Your task to perform on an android device: Go to Amazon Image 0: 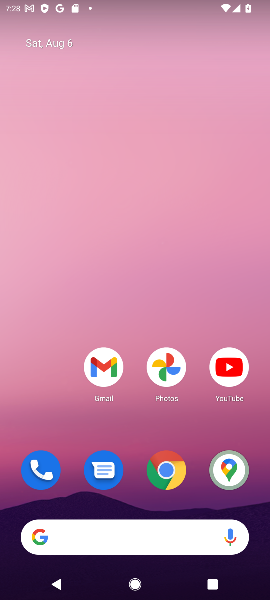
Step 0: drag from (186, 499) to (268, 90)
Your task to perform on an android device: Go to Amazon Image 1: 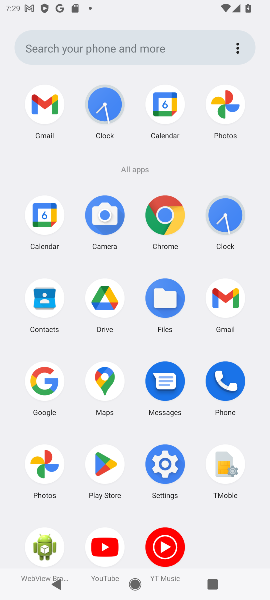
Step 1: click (170, 219)
Your task to perform on an android device: Go to Amazon Image 2: 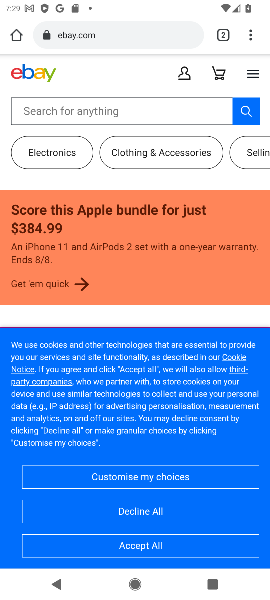
Step 2: drag from (220, 35) to (218, 190)
Your task to perform on an android device: Go to Amazon Image 3: 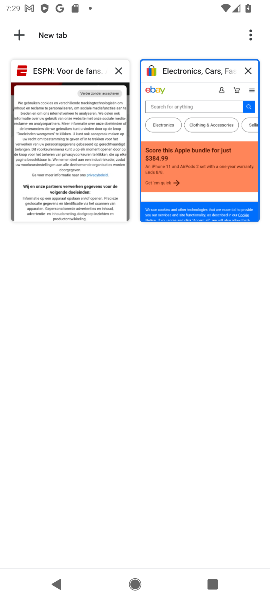
Step 3: click (17, 33)
Your task to perform on an android device: Go to Amazon Image 4: 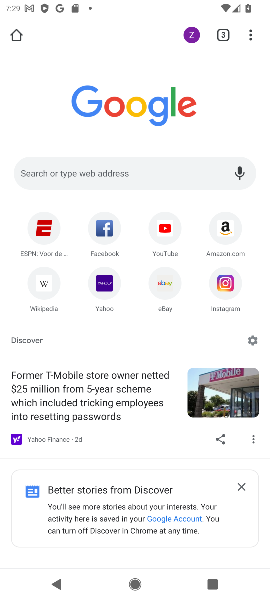
Step 4: click (232, 236)
Your task to perform on an android device: Go to Amazon Image 5: 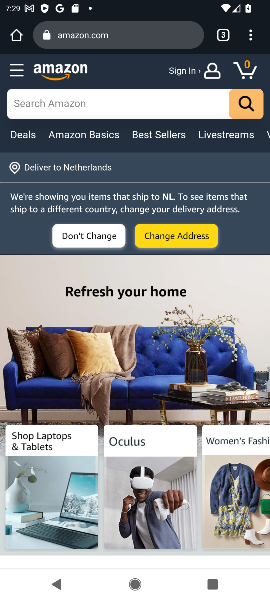
Step 5: task complete